Your task to perform on an android device: toggle priority inbox in the gmail app Image 0: 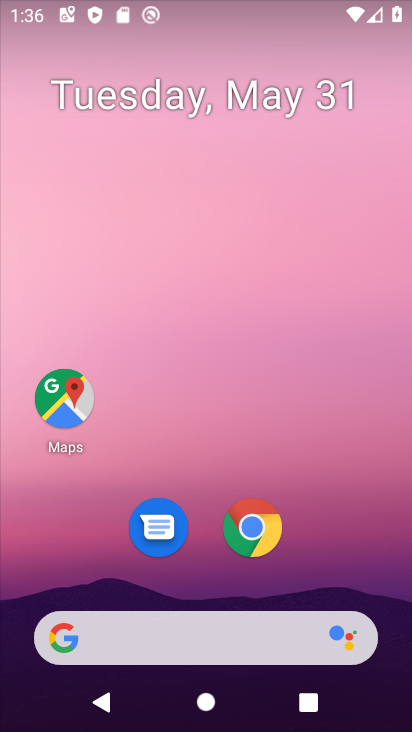
Step 0: drag from (313, 526) to (280, 19)
Your task to perform on an android device: toggle priority inbox in the gmail app Image 1: 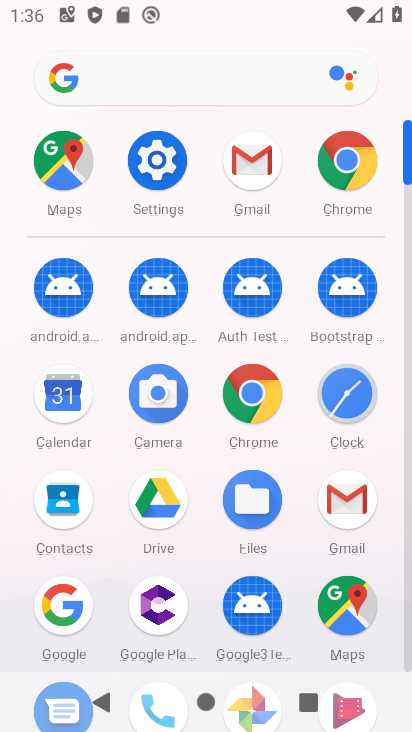
Step 1: click (234, 160)
Your task to perform on an android device: toggle priority inbox in the gmail app Image 2: 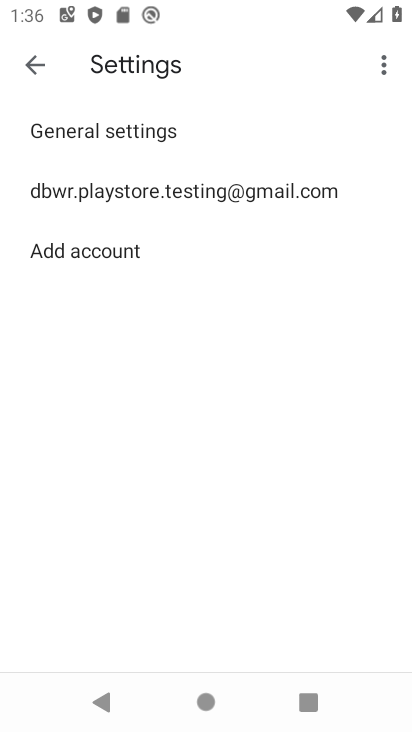
Step 2: click (23, 63)
Your task to perform on an android device: toggle priority inbox in the gmail app Image 3: 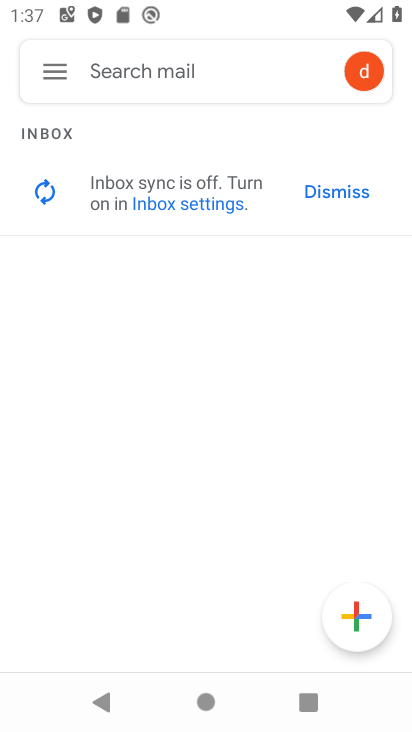
Step 3: click (52, 73)
Your task to perform on an android device: toggle priority inbox in the gmail app Image 4: 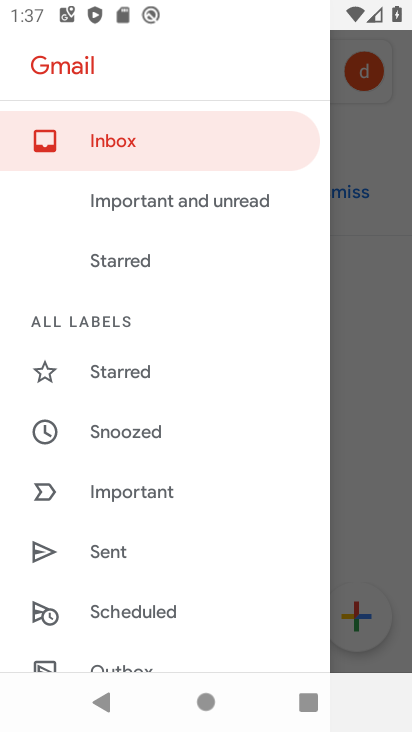
Step 4: drag from (86, 558) to (86, 182)
Your task to perform on an android device: toggle priority inbox in the gmail app Image 5: 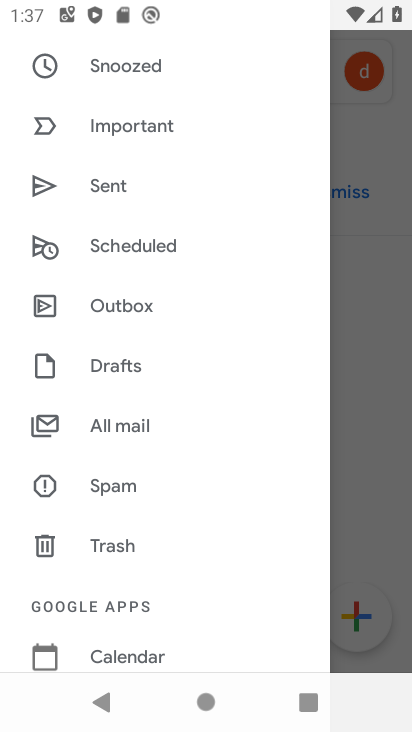
Step 5: drag from (146, 619) to (166, 259)
Your task to perform on an android device: toggle priority inbox in the gmail app Image 6: 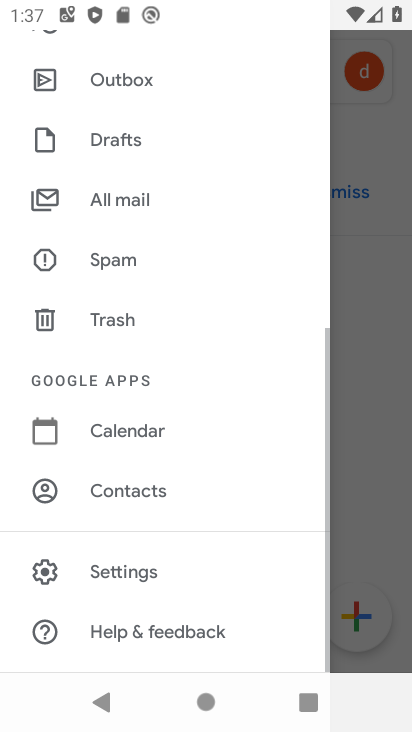
Step 6: click (119, 570)
Your task to perform on an android device: toggle priority inbox in the gmail app Image 7: 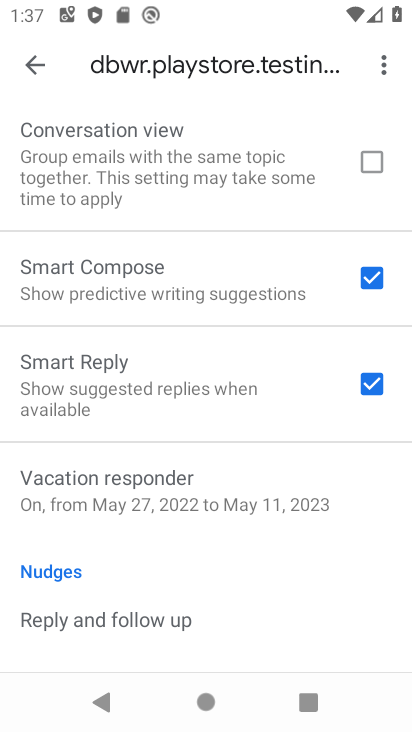
Step 7: drag from (102, 230) to (74, 601)
Your task to perform on an android device: toggle priority inbox in the gmail app Image 8: 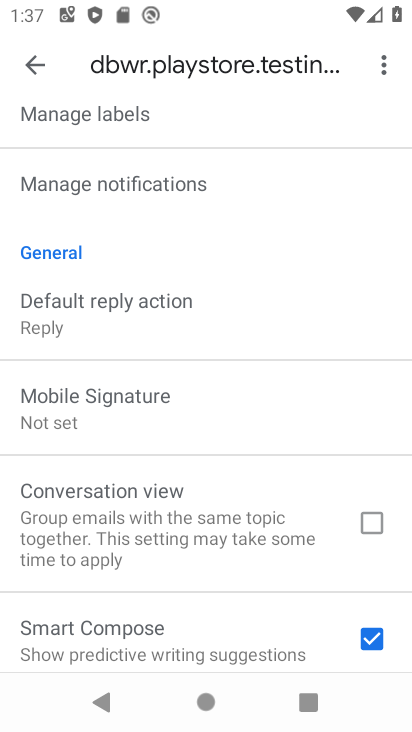
Step 8: drag from (111, 185) to (123, 583)
Your task to perform on an android device: toggle priority inbox in the gmail app Image 9: 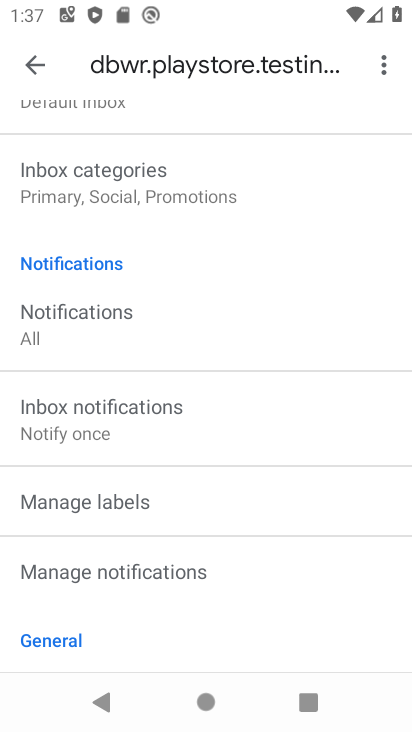
Step 9: drag from (126, 214) to (198, 544)
Your task to perform on an android device: toggle priority inbox in the gmail app Image 10: 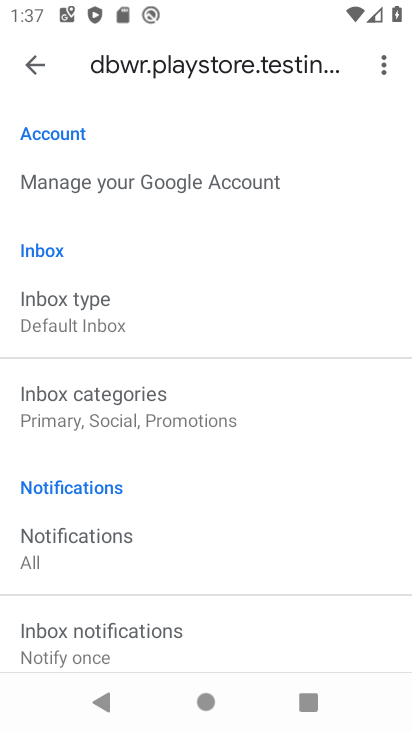
Step 10: click (98, 312)
Your task to perform on an android device: toggle priority inbox in the gmail app Image 11: 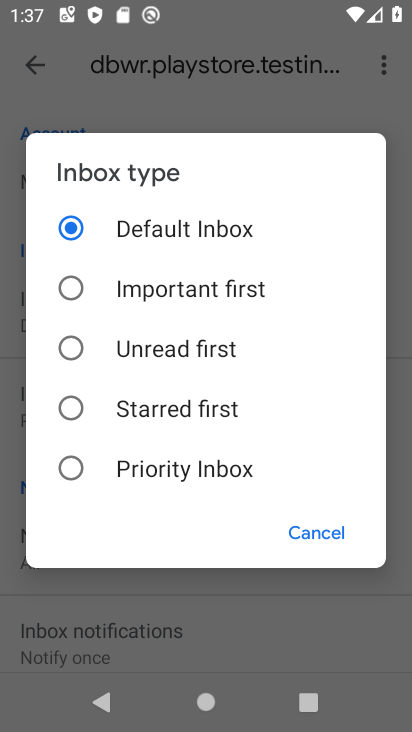
Step 11: click (134, 471)
Your task to perform on an android device: toggle priority inbox in the gmail app Image 12: 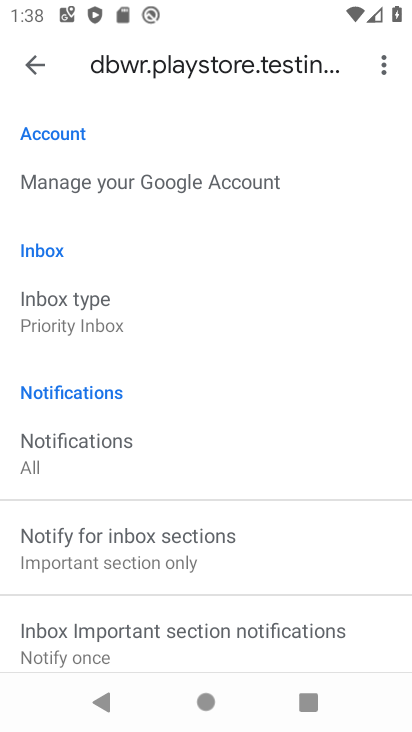
Step 12: task complete